Your task to perform on an android device: Open Android settings Image 0: 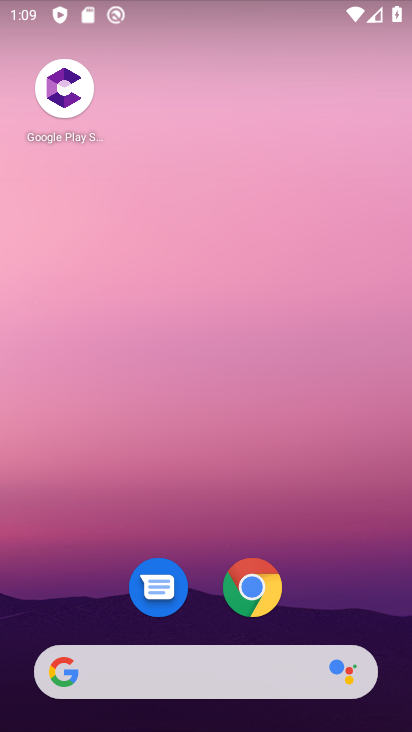
Step 0: drag from (388, 687) to (332, 301)
Your task to perform on an android device: Open Android settings Image 1: 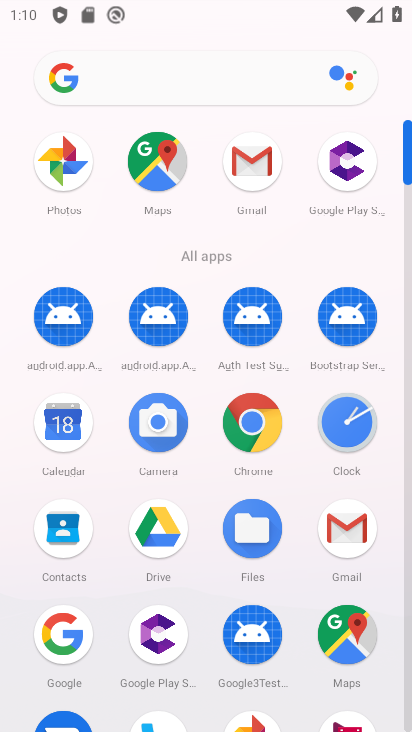
Step 1: click (406, 130)
Your task to perform on an android device: Open Android settings Image 2: 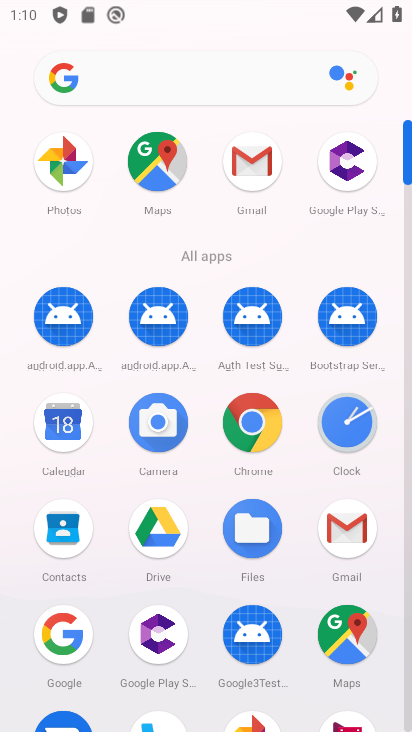
Step 2: click (408, 129)
Your task to perform on an android device: Open Android settings Image 3: 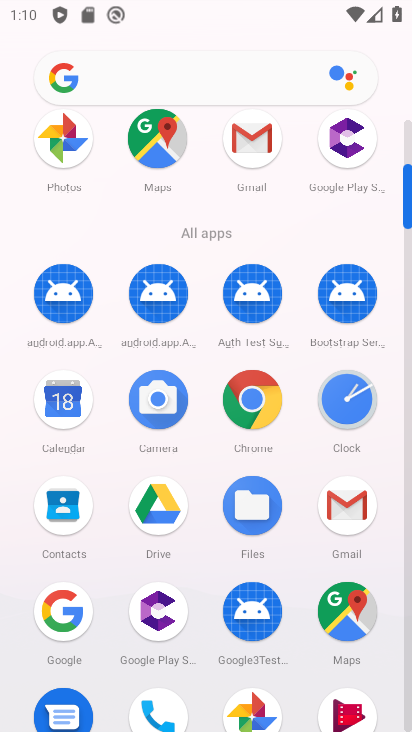
Step 3: drag from (405, 130) to (399, 58)
Your task to perform on an android device: Open Android settings Image 4: 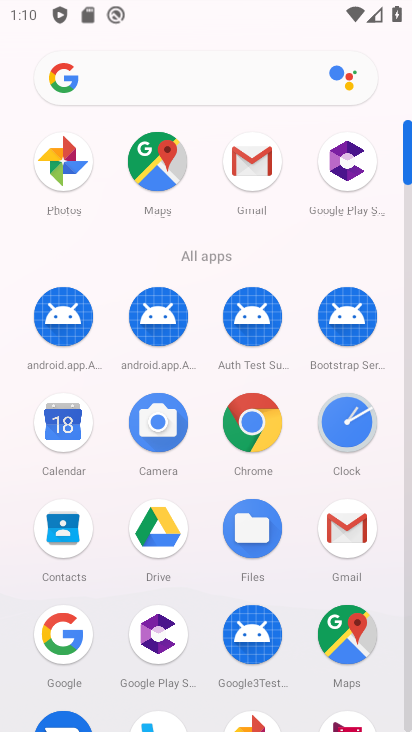
Step 4: drag from (406, 142) to (405, 518)
Your task to perform on an android device: Open Android settings Image 5: 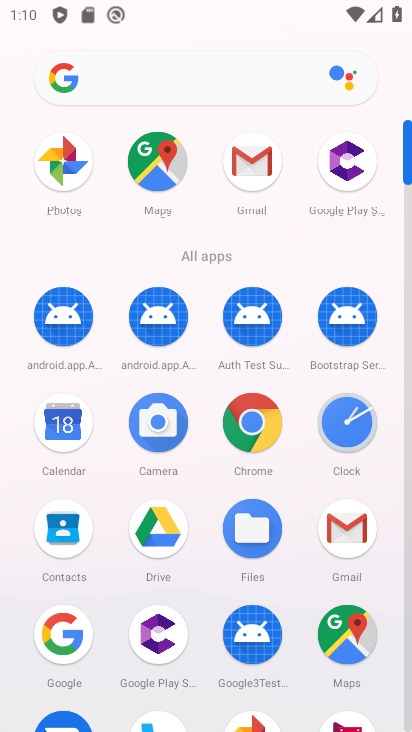
Step 5: click (406, 122)
Your task to perform on an android device: Open Android settings Image 6: 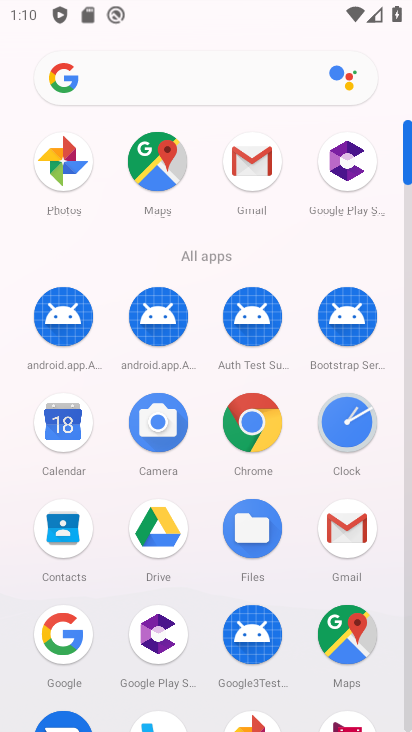
Step 6: drag from (405, 133) to (405, 91)
Your task to perform on an android device: Open Android settings Image 7: 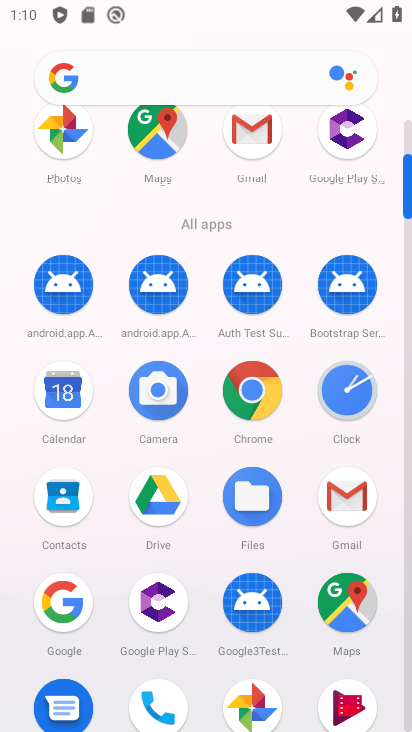
Step 7: drag from (408, 140) to (409, 96)
Your task to perform on an android device: Open Android settings Image 8: 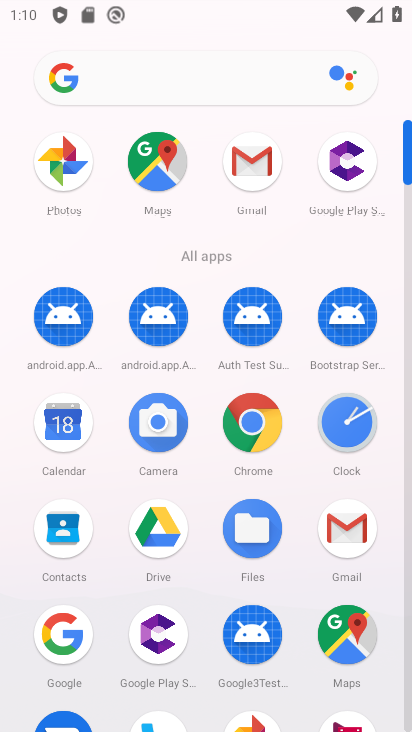
Step 8: click (403, 129)
Your task to perform on an android device: Open Android settings Image 9: 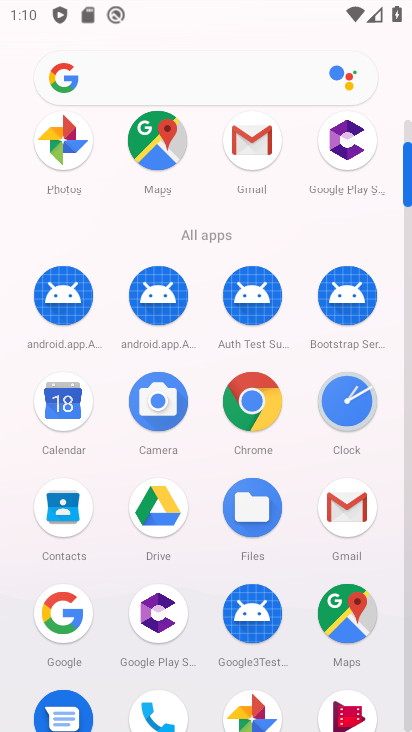
Step 9: drag from (411, 151) to (411, 112)
Your task to perform on an android device: Open Android settings Image 10: 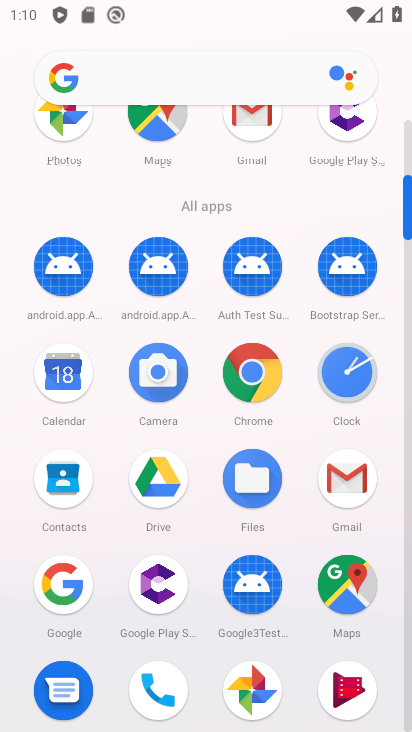
Step 10: drag from (206, 644) to (224, 361)
Your task to perform on an android device: Open Android settings Image 11: 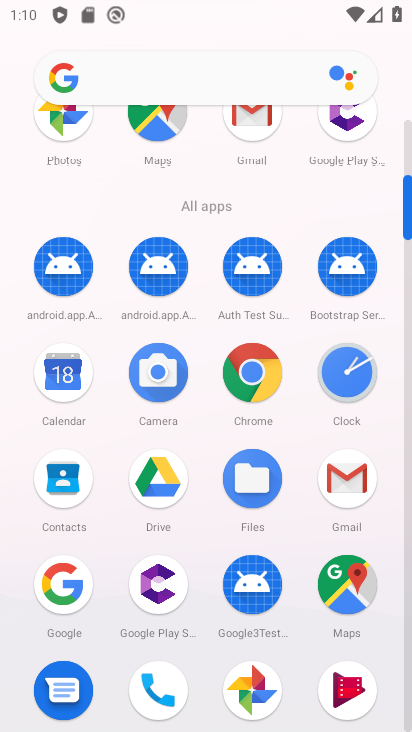
Step 11: drag from (211, 652) to (216, 422)
Your task to perform on an android device: Open Android settings Image 12: 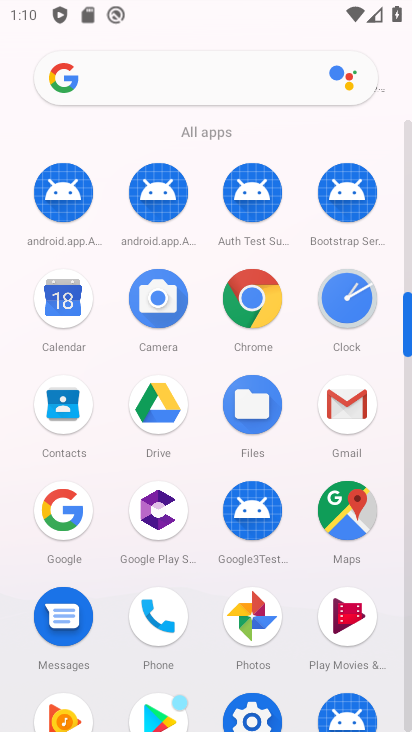
Step 12: click (187, 374)
Your task to perform on an android device: Open Android settings Image 13: 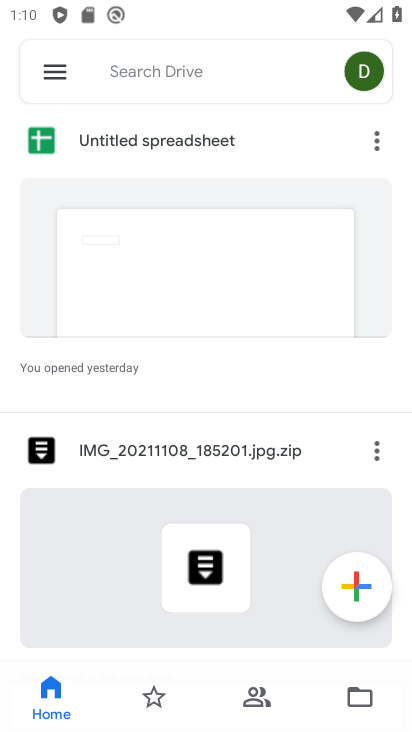
Step 13: press home button
Your task to perform on an android device: Open Android settings Image 14: 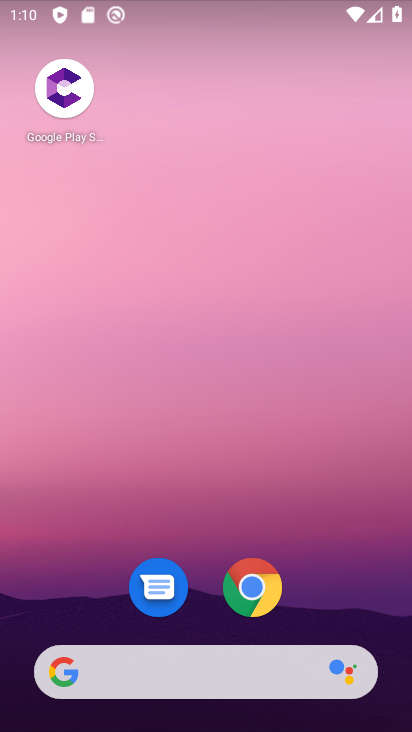
Step 14: drag from (371, 552) to (353, 199)
Your task to perform on an android device: Open Android settings Image 15: 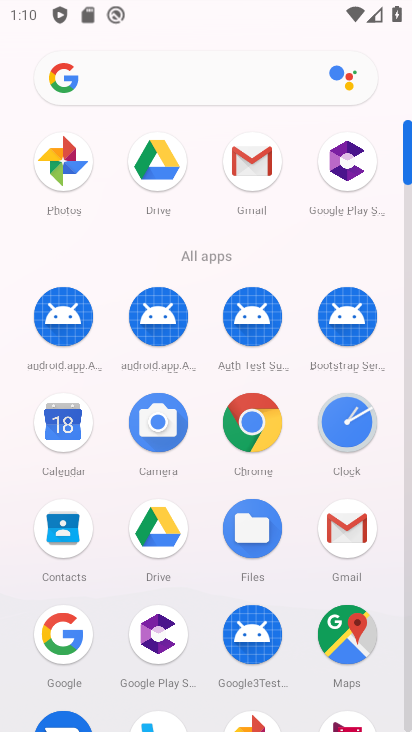
Step 15: drag from (188, 625) to (181, 296)
Your task to perform on an android device: Open Android settings Image 16: 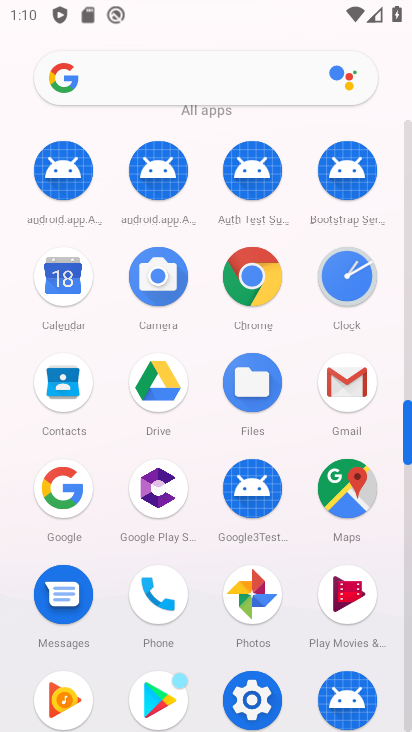
Step 16: click (234, 678)
Your task to perform on an android device: Open Android settings Image 17: 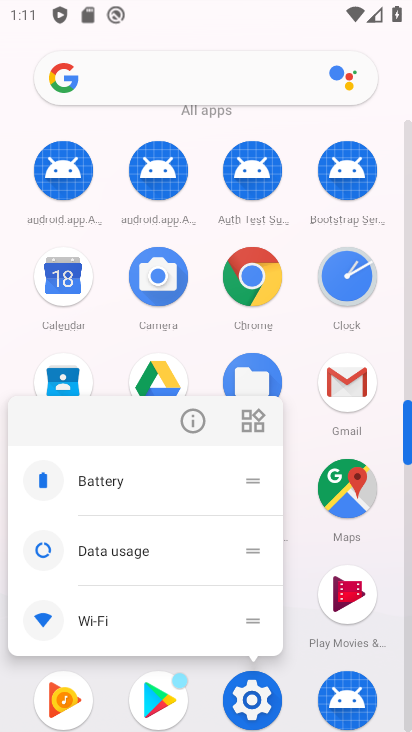
Step 17: click (245, 691)
Your task to perform on an android device: Open Android settings Image 18: 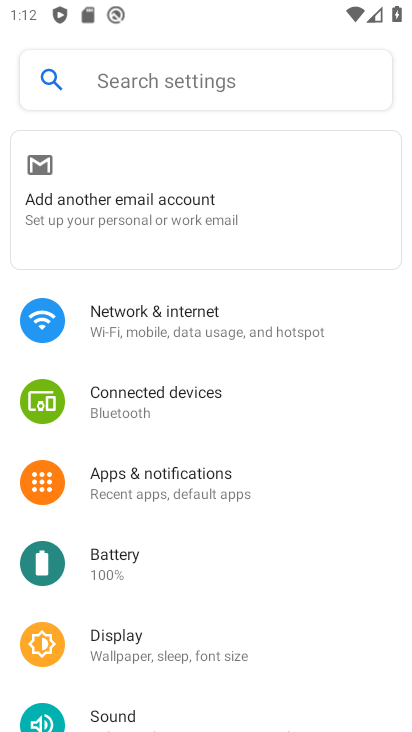
Step 18: task complete